Your task to perform on an android device: Search for Italian restaurants on Maps Image 0: 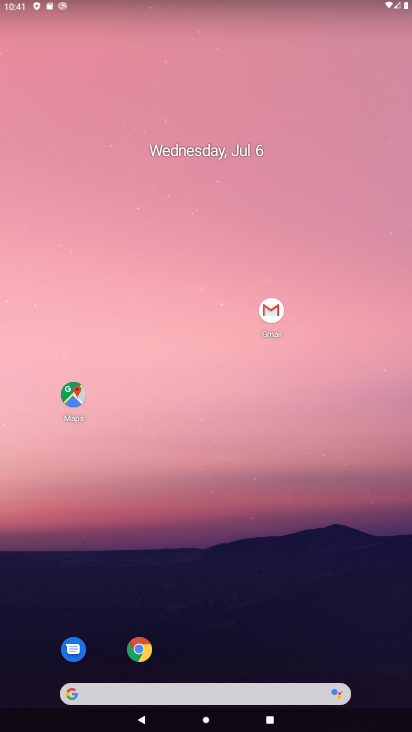
Step 0: click (70, 407)
Your task to perform on an android device: Search for Italian restaurants on Maps Image 1: 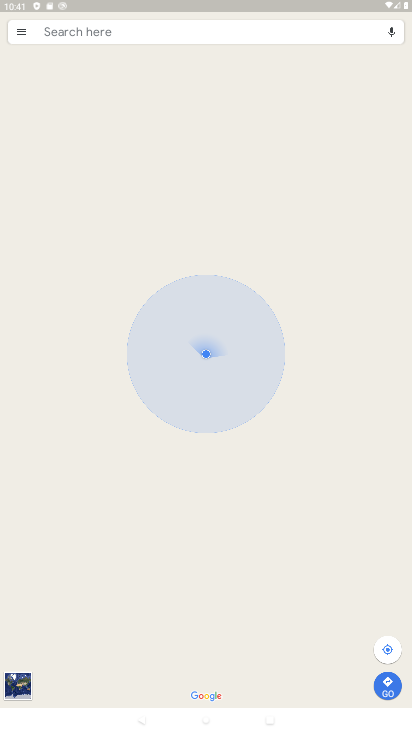
Step 1: click (192, 28)
Your task to perform on an android device: Search for Italian restaurants on Maps Image 2: 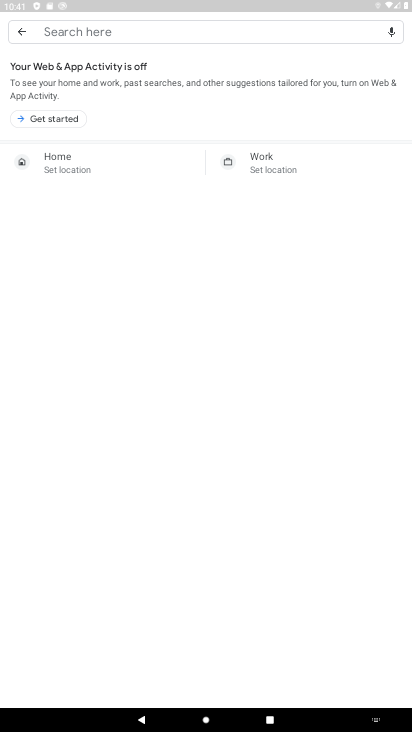
Step 2: type "italian restaurants"
Your task to perform on an android device: Search for Italian restaurants on Maps Image 3: 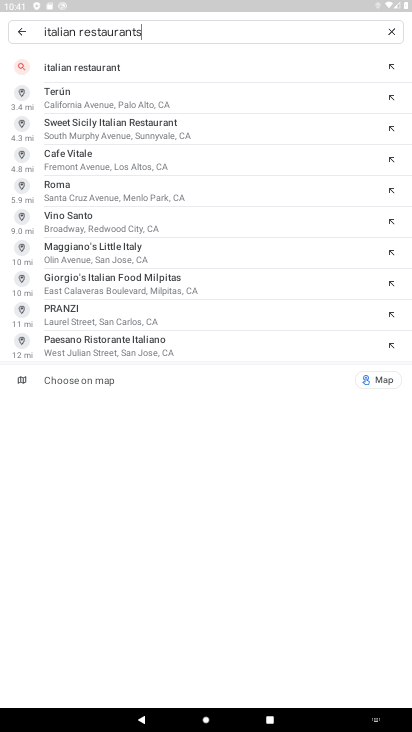
Step 3: click (130, 63)
Your task to perform on an android device: Search for Italian restaurants on Maps Image 4: 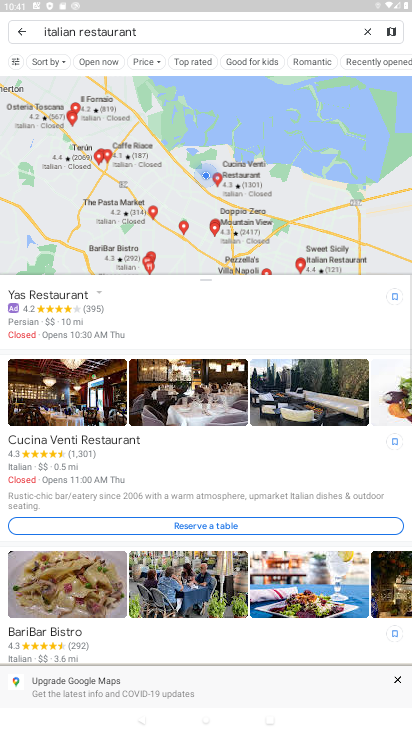
Step 4: task complete